Your task to perform on an android device: turn notification dots on Image 0: 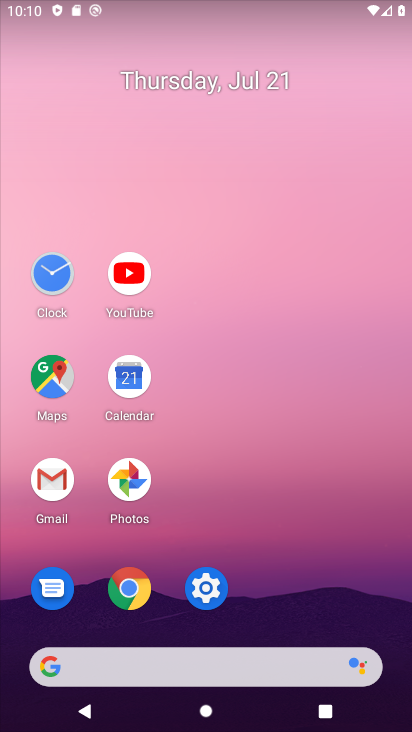
Step 0: click (203, 585)
Your task to perform on an android device: turn notification dots on Image 1: 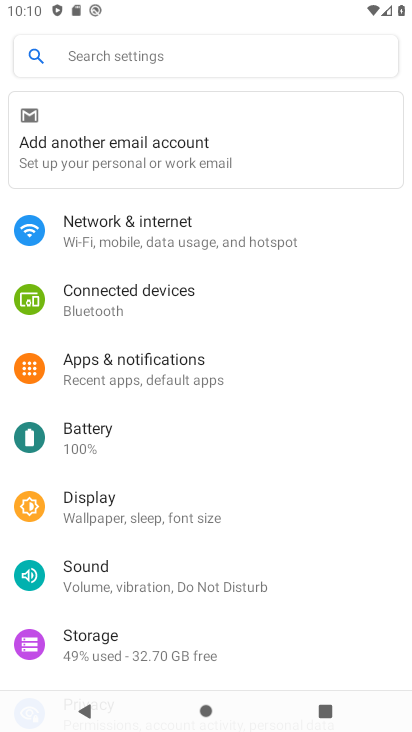
Step 1: click (116, 362)
Your task to perform on an android device: turn notification dots on Image 2: 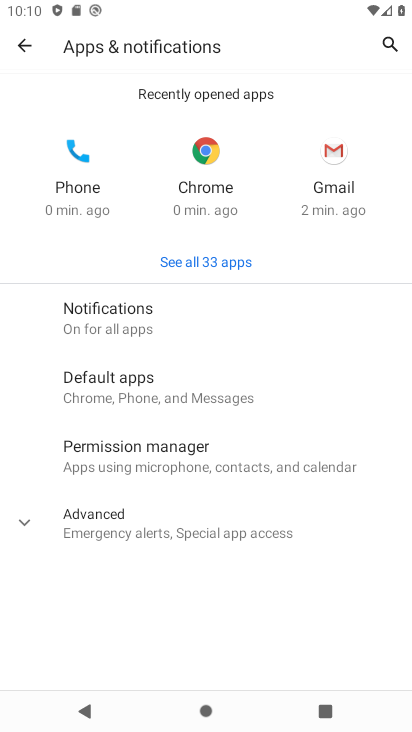
Step 2: click (109, 312)
Your task to perform on an android device: turn notification dots on Image 3: 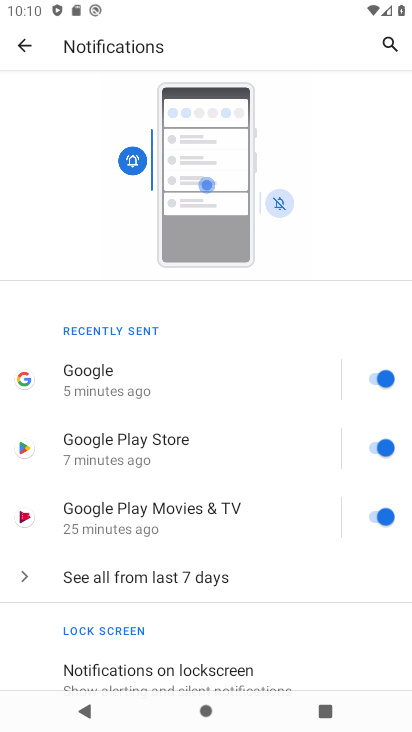
Step 3: drag from (184, 634) to (191, 332)
Your task to perform on an android device: turn notification dots on Image 4: 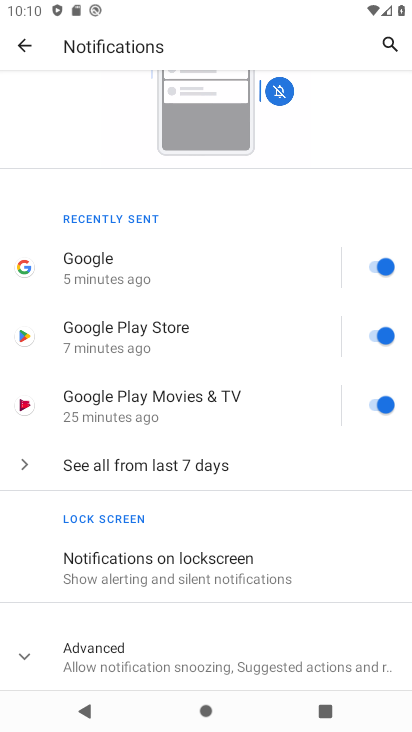
Step 4: click (26, 659)
Your task to perform on an android device: turn notification dots on Image 5: 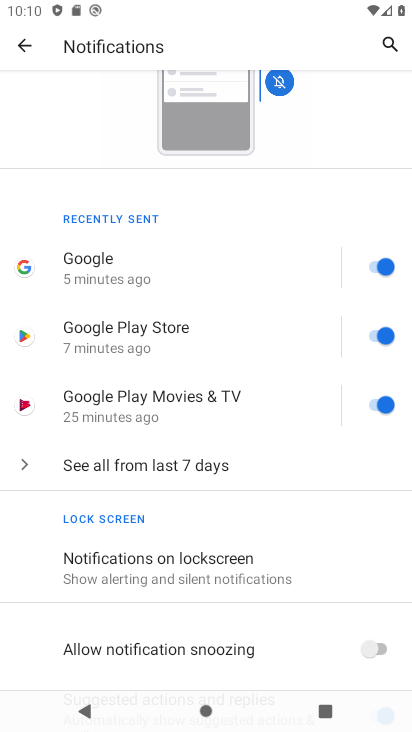
Step 5: task complete